Your task to perform on an android device: install app "Pandora - Music & Podcasts" Image 0: 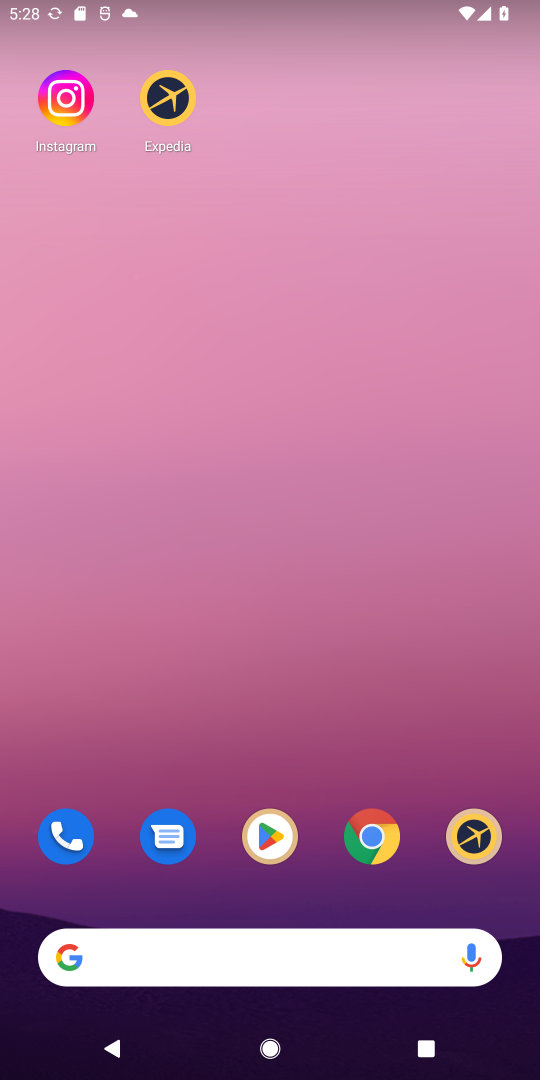
Step 0: click (272, 836)
Your task to perform on an android device: install app "Pandora - Music & Podcasts" Image 1: 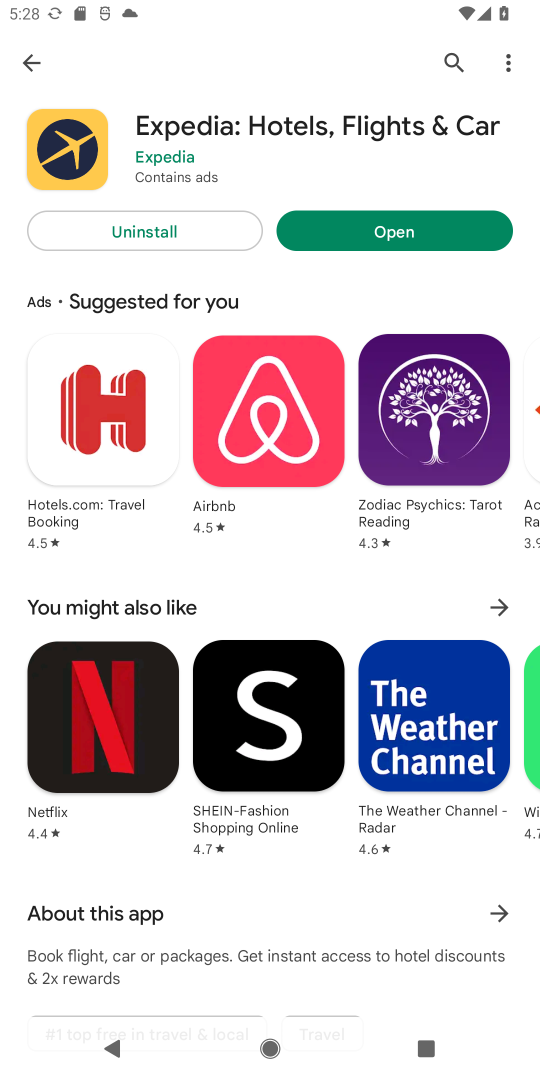
Step 1: click (454, 62)
Your task to perform on an android device: install app "Pandora - Music & Podcasts" Image 2: 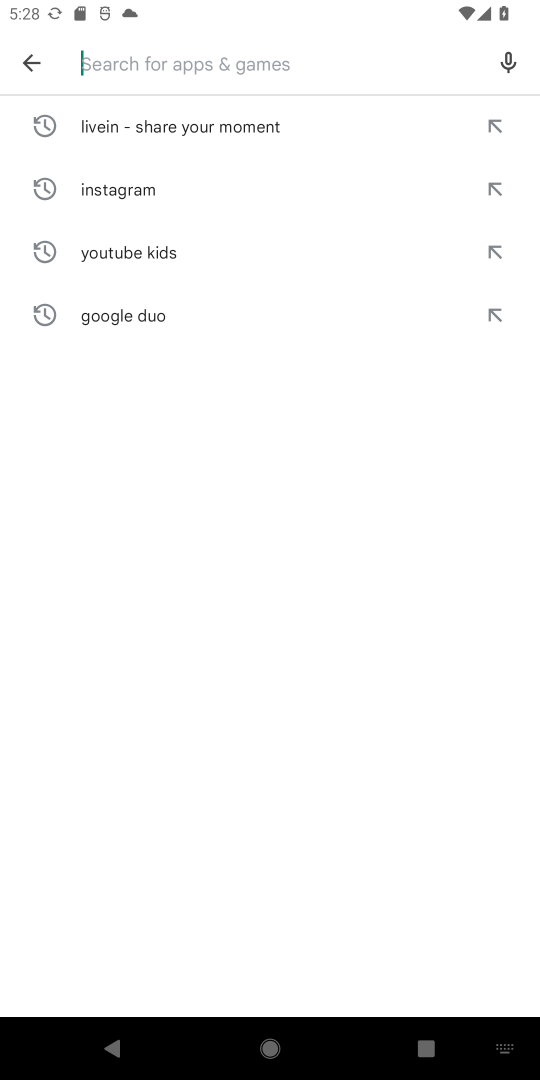
Step 2: type "Pandora - Music & Podcasts"
Your task to perform on an android device: install app "Pandora - Music & Podcasts" Image 3: 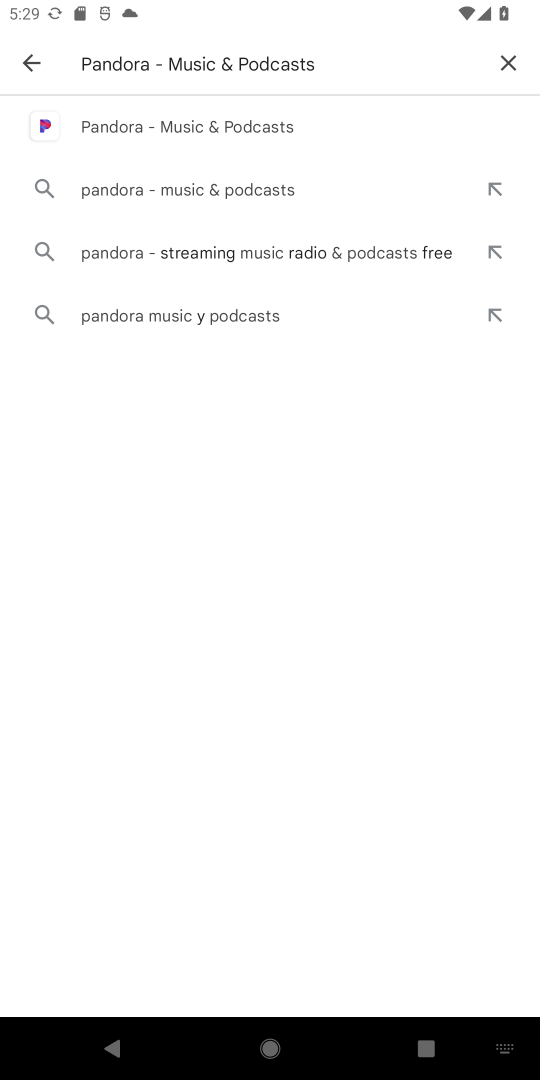
Step 3: click (157, 123)
Your task to perform on an android device: install app "Pandora - Music & Podcasts" Image 4: 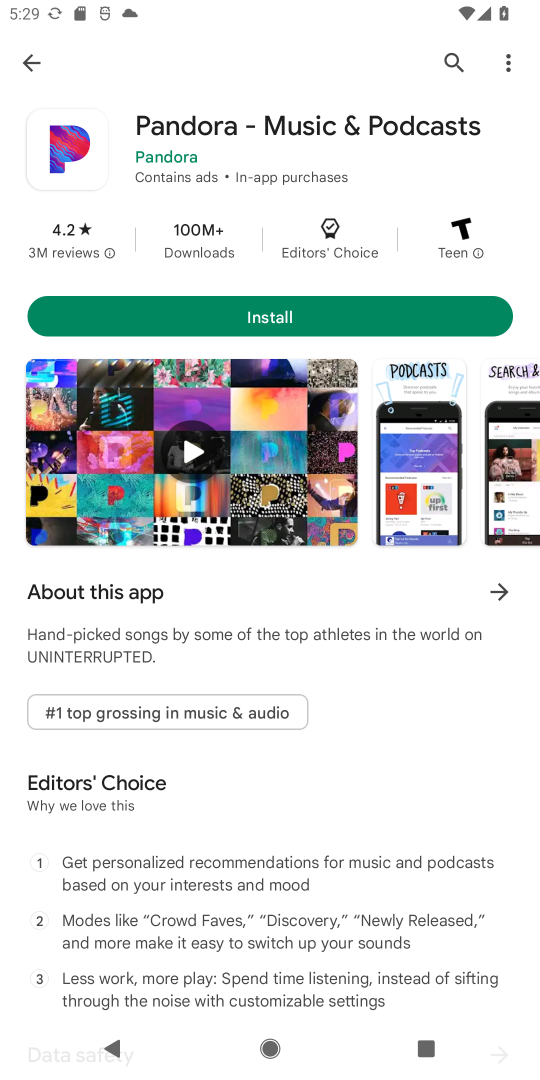
Step 4: click (271, 316)
Your task to perform on an android device: install app "Pandora - Music & Podcasts" Image 5: 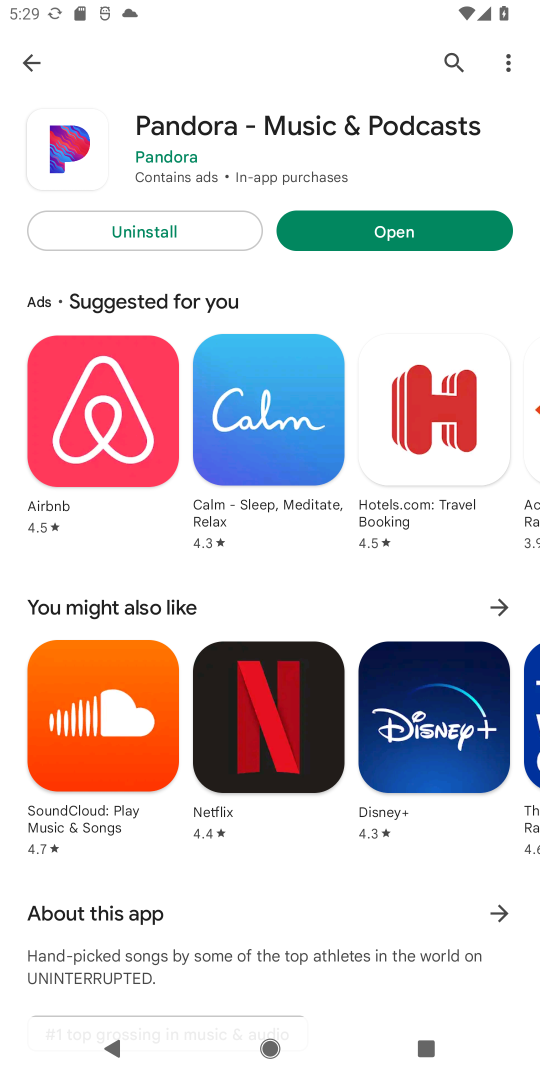
Step 5: task complete